Your task to perform on an android device: delete a single message in the gmail app Image 0: 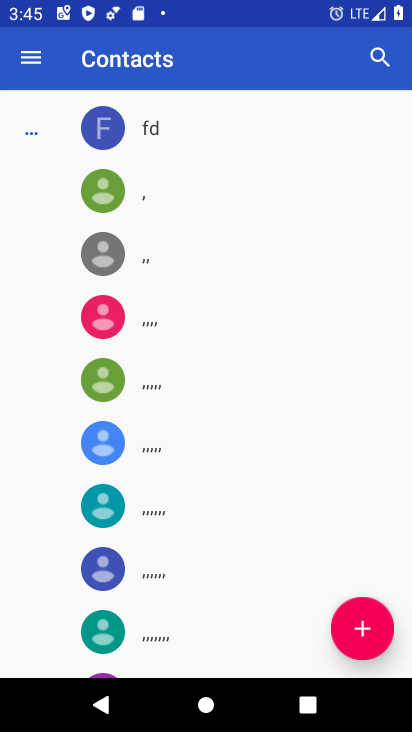
Step 0: press back button
Your task to perform on an android device: delete a single message in the gmail app Image 1: 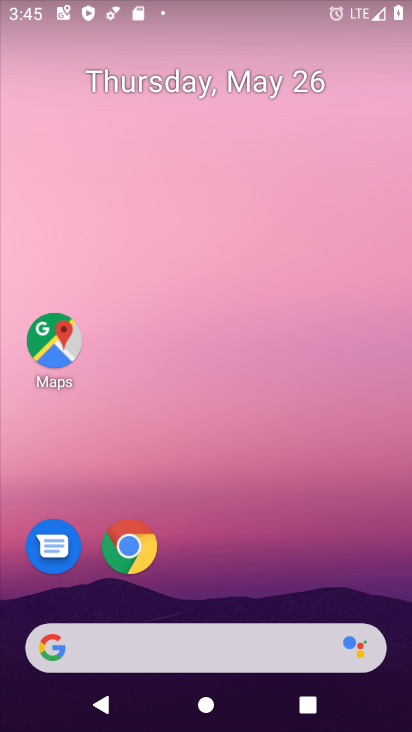
Step 1: drag from (245, 454) to (270, 20)
Your task to perform on an android device: delete a single message in the gmail app Image 2: 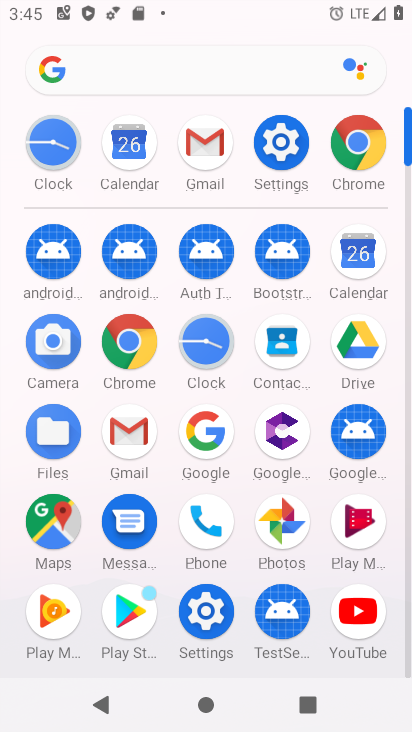
Step 2: click (197, 140)
Your task to perform on an android device: delete a single message in the gmail app Image 3: 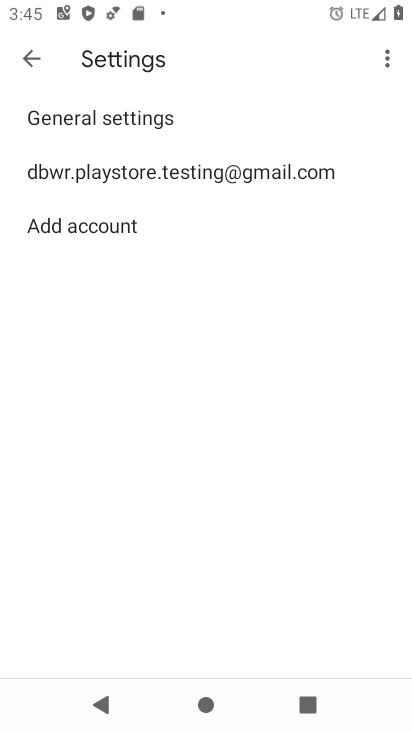
Step 3: click (27, 57)
Your task to perform on an android device: delete a single message in the gmail app Image 4: 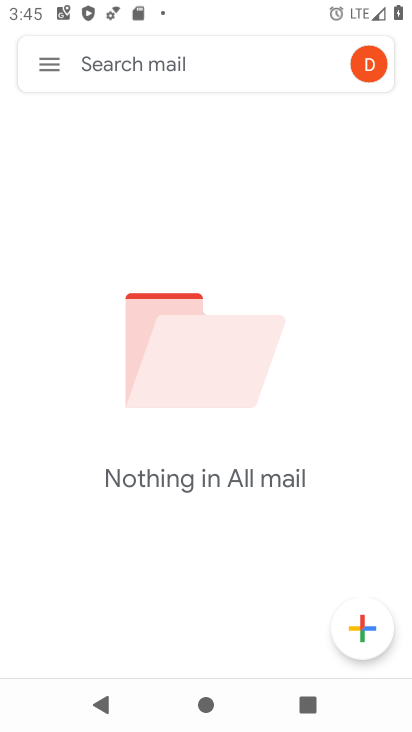
Step 4: task complete